Your task to perform on an android device: toggle notifications settings in the gmail app Image 0: 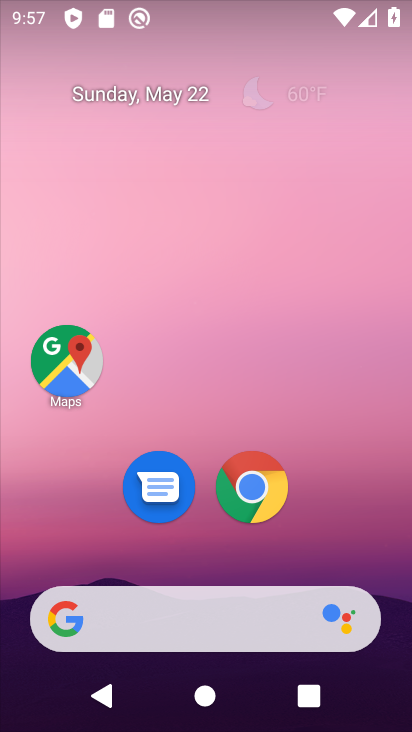
Step 0: drag from (377, 539) to (314, 34)
Your task to perform on an android device: toggle notifications settings in the gmail app Image 1: 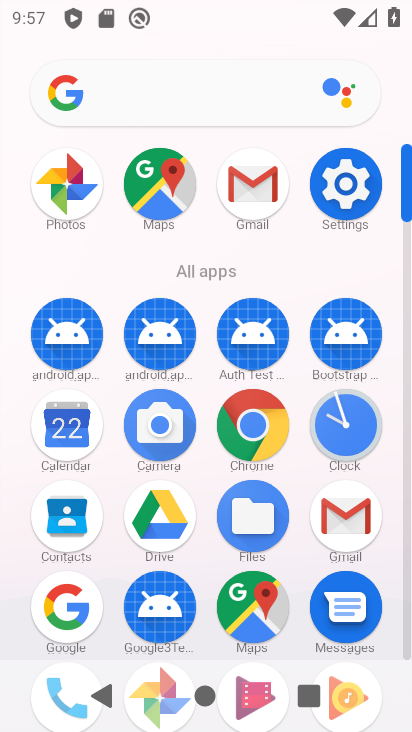
Step 1: click (249, 213)
Your task to perform on an android device: toggle notifications settings in the gmail app Image 2: 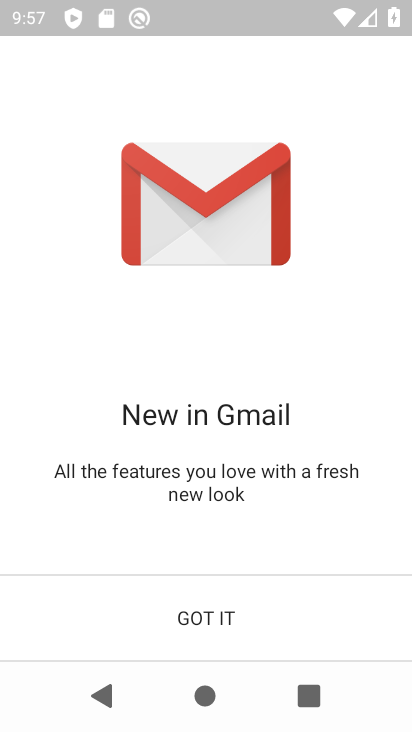
Step 2: click (253, 614)
Your task to perform on an android device: toggle notifications settings in the gmail app Image 3: 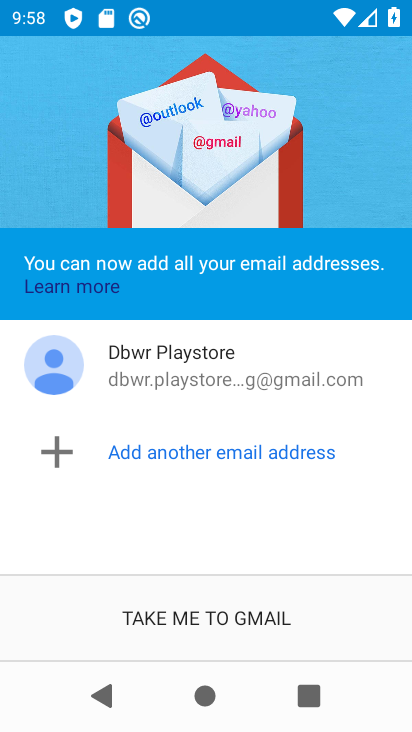
Step 3: click (253, 614)
Your task to perform on an android device: toggle notifications settings in the gmail app Image 4: 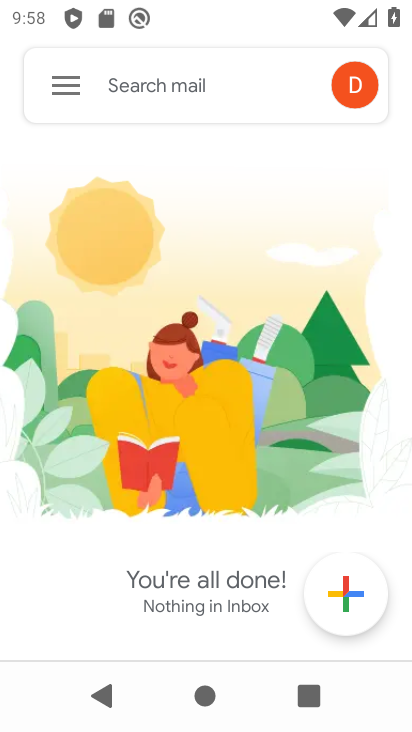
Step 4: click (68, 71)
Your task to perform on an android device: toggle notifications settings in the gmail app Image 5: 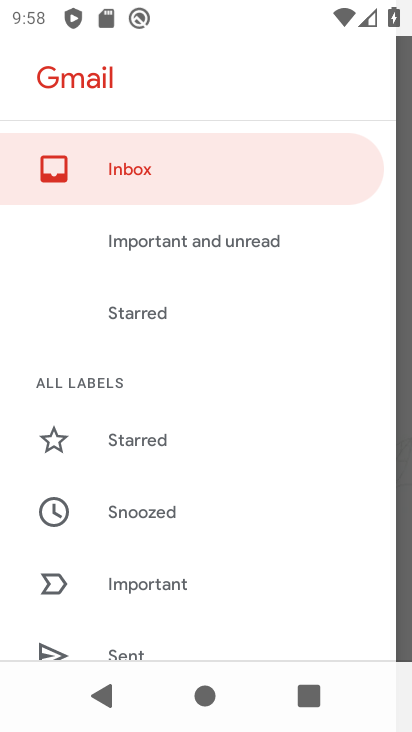
Step 5: drag from (201, 653) to (176, 145)
Your task to perform on an android device: toggle notifications settings in the gmail app Image 6: 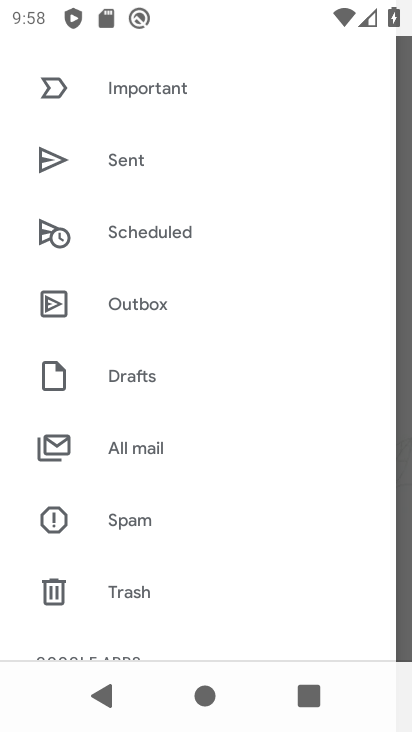
Step 6: drag from (174, 618) to (193, 97)
Your task to perform on an android device: toggle notifications settings in the gmail app Image 7: 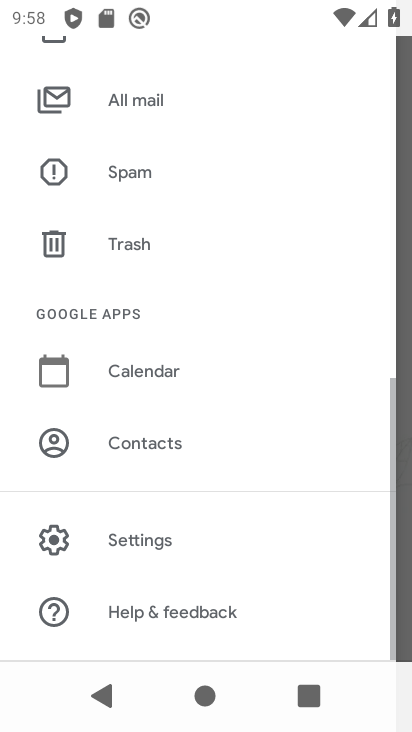
Step 7: click (175, 530)
Your task to perform on an android device: toggle notifications settings in the gmail app Image 8: 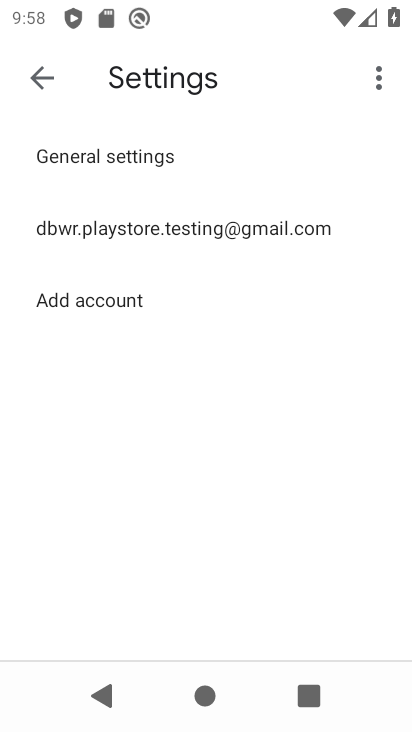
Step 8: click (199, 254)
Your task to perform on an android device: toggle notifications settings in the gmail app Image 9: 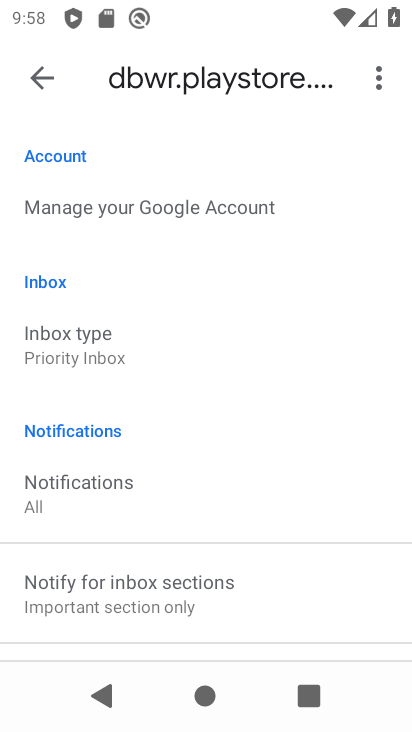
Step 9: drag from (241, 660) to (175, 287)
Your task to perform on an android device: toggle notifications settings in the gmail app Image 10: 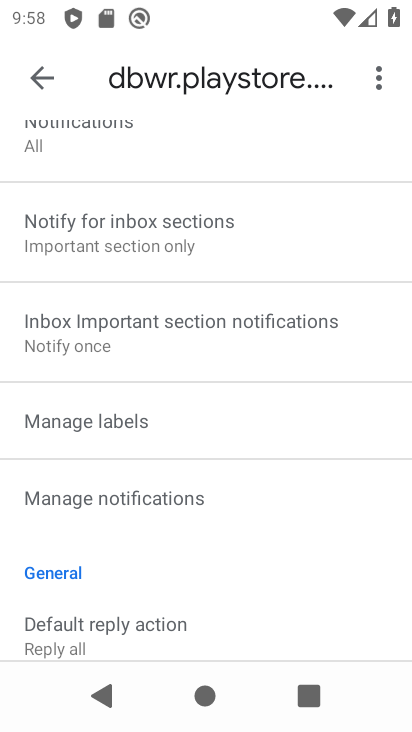
Step 10: click (221, 498)
Your task to perform on an android device: toggle notifications settings in the gmail app Image 11: 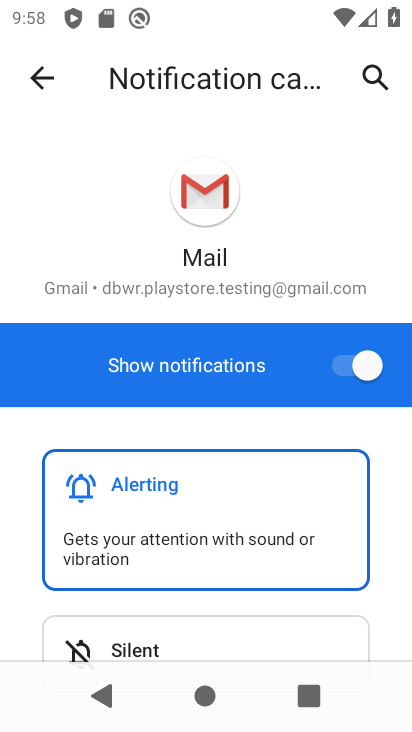
Step 11: click (368, 371)
Your task to perform on an android device: toggle notifications settings in the gmail app Image 12: 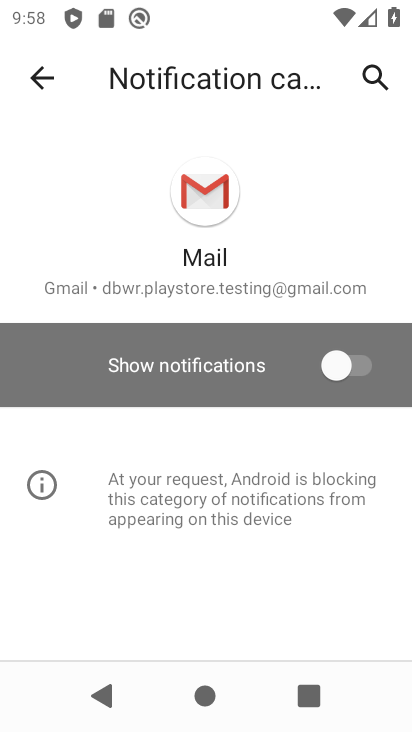
Step 12: task complete